Your task to perform on an android device: Go to CNN.com Image 0: 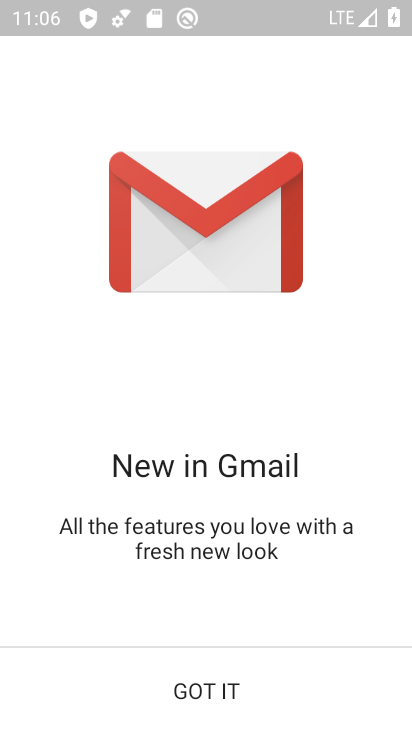
Step 0: press home button
Your task to perform on an android device: Go to CNN.com Image 1: 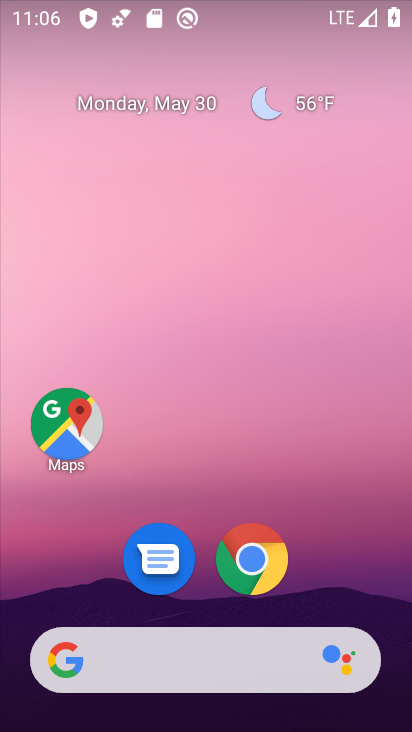
Step 1: click (273, 567)
Your task to perform on an android device: Go to CNN.com Image 2: 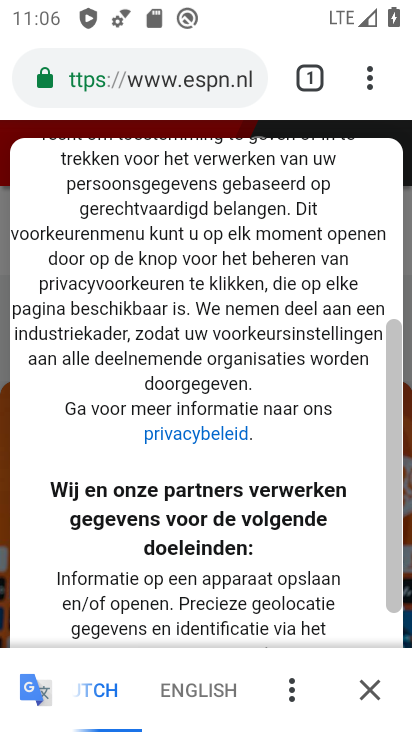
Step 2: click (227, 72)
Your task to perform on an android device: Go to CNN.com Image 3: 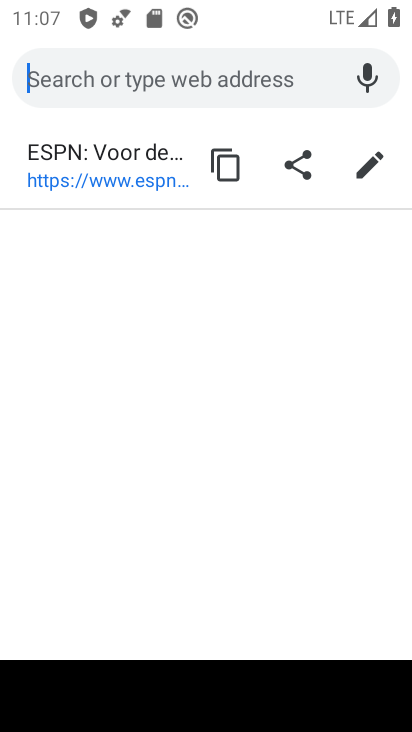
Step 3: type "cnn.com"
Your task to perform on an android device: Go to CNN.com Image 4: 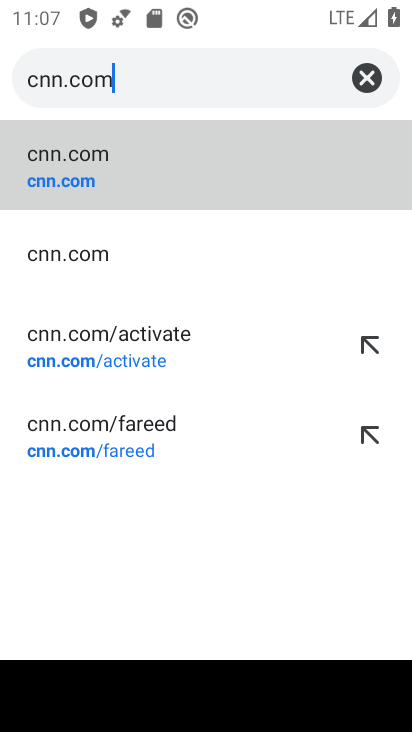
Step 4: click (65, 183)
Your task to perform on an android device: Go to CNN.com Image 5: 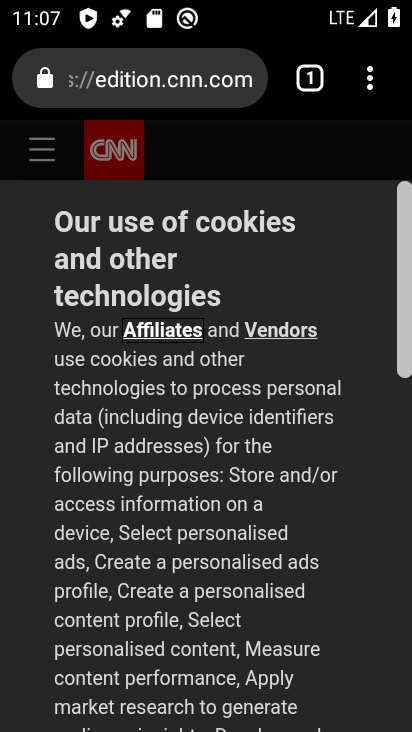
Step 5: task complete